Your task to perform on an android device: Go to battery settings Image 0: 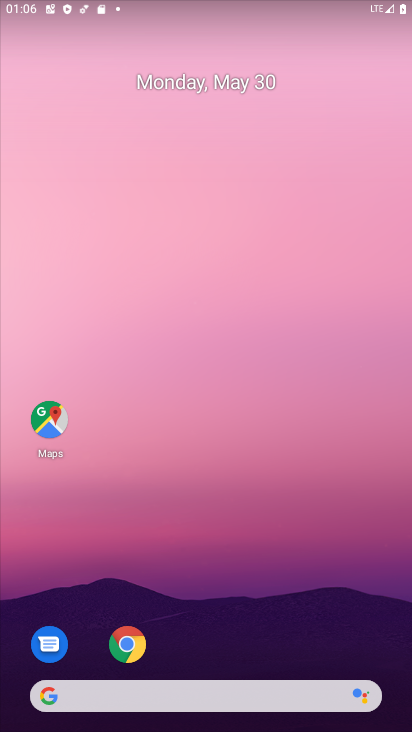
Step 0: drag from (271, 558) to (307, 148)
Your task to perform on an android device: Go to battery settings Image 1: 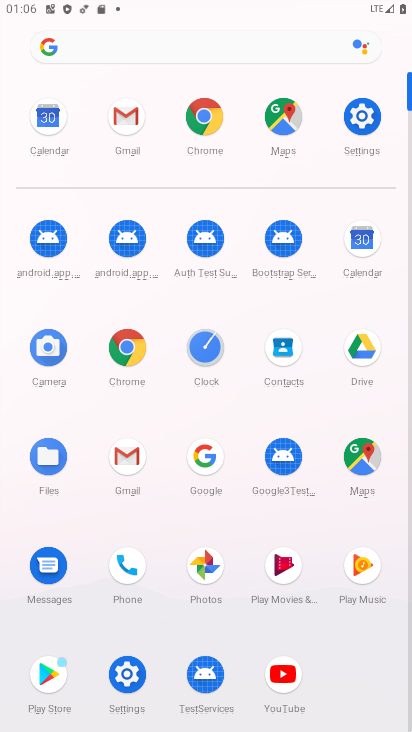
Step 1: click (144, 675)
Your task to perform on an android device: Go to battery settings Image 2: 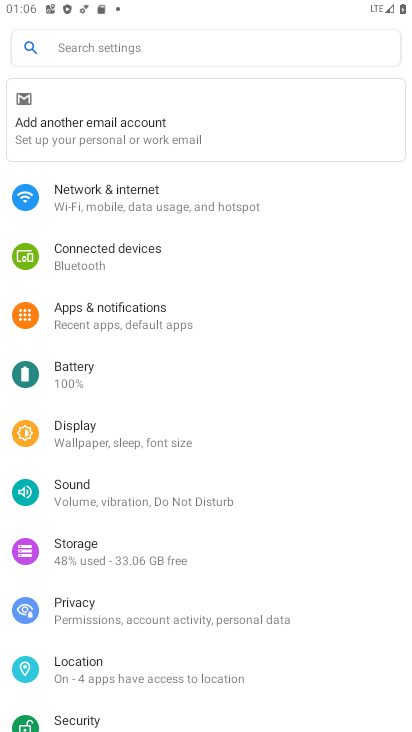
Step 2: click (138, 376)
Your task to perform on an android device: Go to battery settings Image 3: 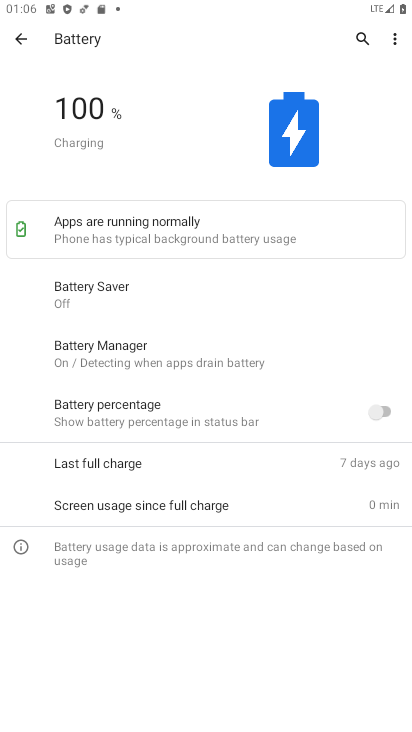
Step 3: task complete